Your task to perform on an android device: What's the weather going to be this weekend? Image 0: 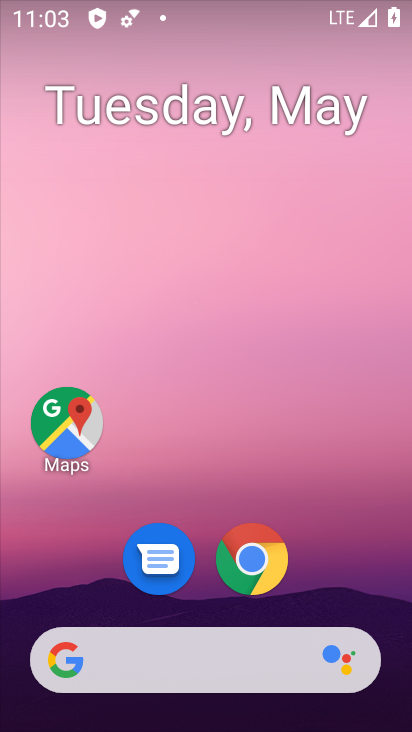
Step 0: drag from (353, 546) to (379, 133)
Your task to perform on an android device: What's the weather going to be this weekend? Image 1: 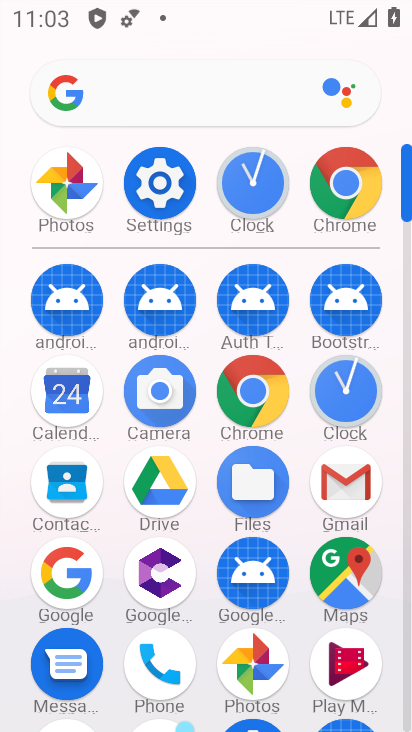
Step 1: click (234, 386)
Your task to perform on an android device: What's the weather going to be this weekend? Image 2: 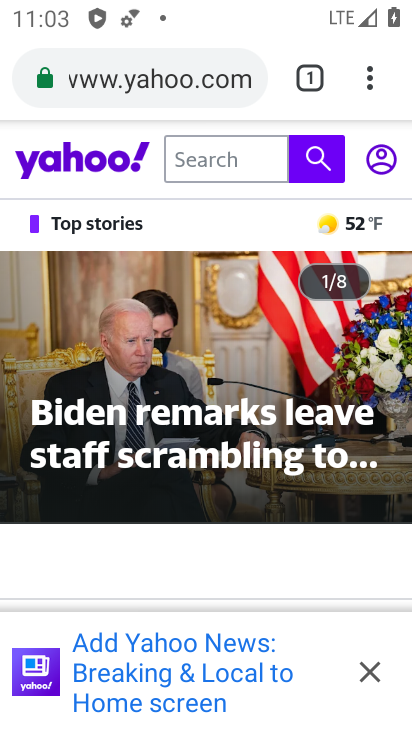
Step 2: click (175, 83)
Your task to perform on an android device: What's the weather going to be this weekend? Image 3: 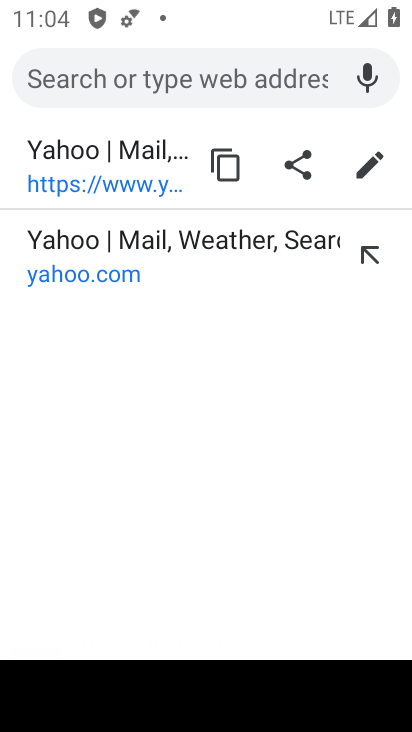
Step 3: type "what's the weather going to be this weekend"
Your task to perform on an android device: What's the weather going to be this weekend? Image 4: 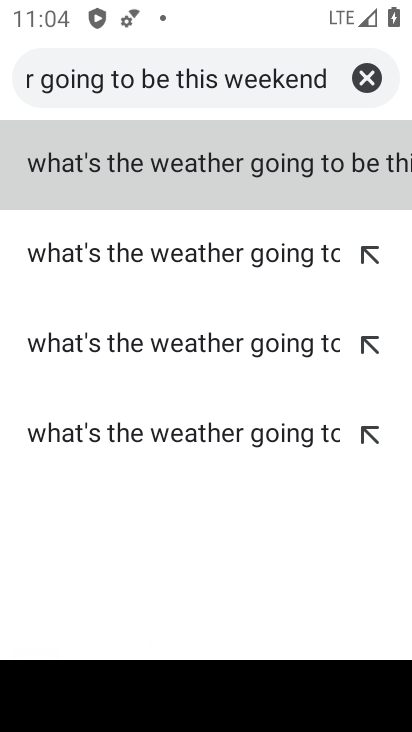
Step 4: click (191, 192)
Your task to perform on an android device: What's the weather going to be this weekend? Image 5: 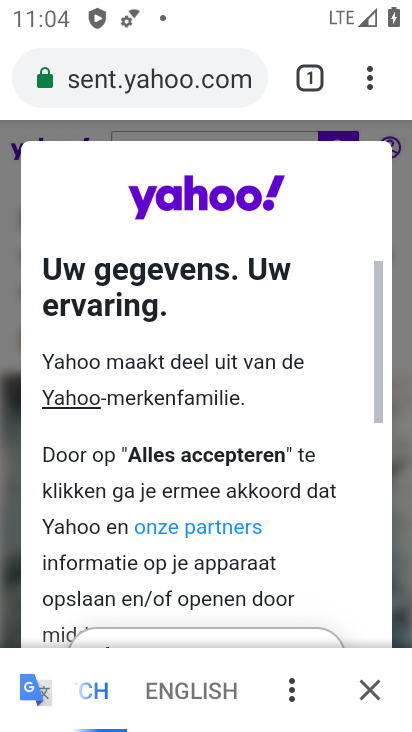
Step 5: task complete